Your task to perform on an android device: Open Google Maps and go to "Timeline" Image 0: 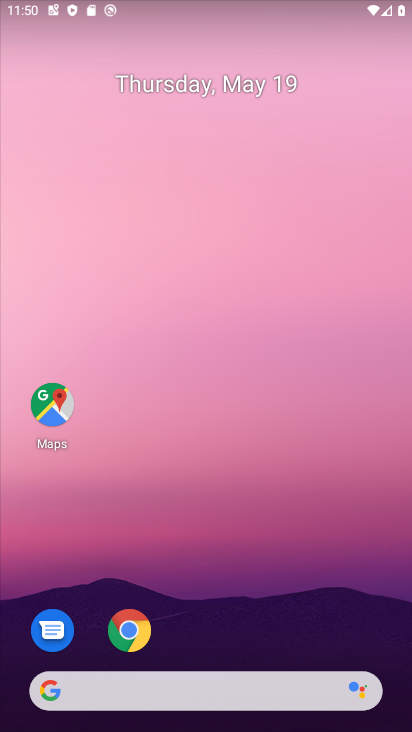
Step 0: drag from (254, 629) to (198, 91)
Your task to perform on an android device: Open Google Maps and go to "Timeline" Image 1: 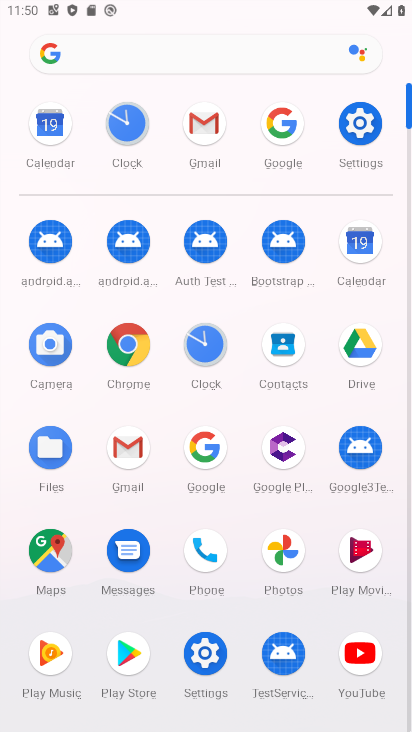
Step 1: click (51, 553)
Your task to perform on an android device: Open Google Maps and go to "Timeline" Image 2: 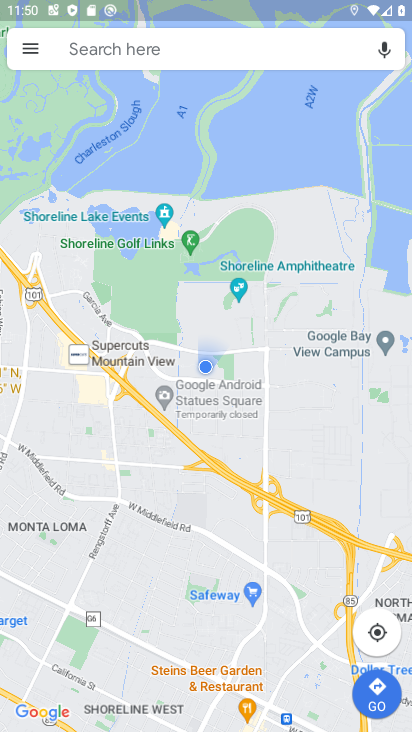
Step 2: click (35, 54)
Your task to perform on an android device: Open Google Maps and go to "Timeline" Image 3: 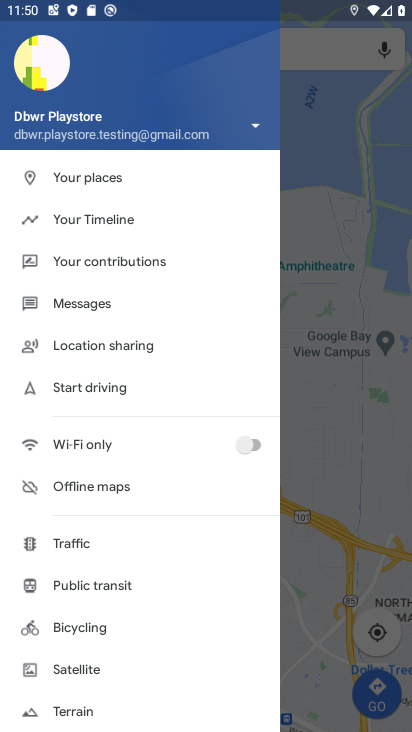
Step 3: click (78, 228)
Your task to perform on an android device: Open Google Maps and go to "Timeline" Image 4: 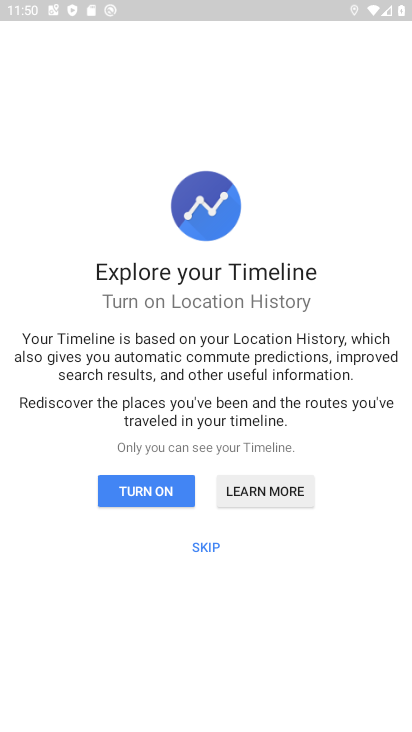
Step 4: click (218, 551)
Your task to perform on an android device: Open Google Maps and go to "Timeline" Image 5: 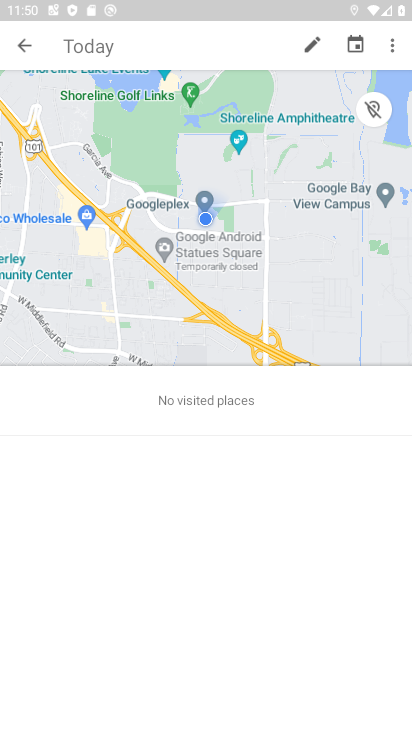
Step 5: task complete